Your task to perform on an android device: turn off translation in the chrome app Image 0: 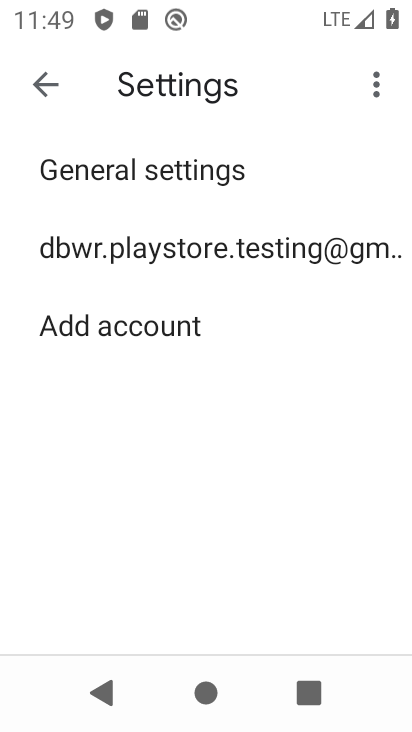
Step 0: press home button
Your task to perform on an android device: turn off translation in the chrome app Image 1: 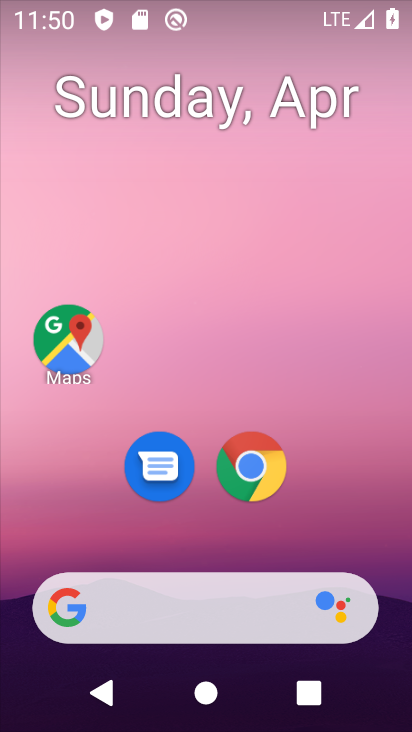
Step 1: drag from (315, 501) to (246, 77)
Your task to perform on an android device: turn off translation in the chrome app Image 2: 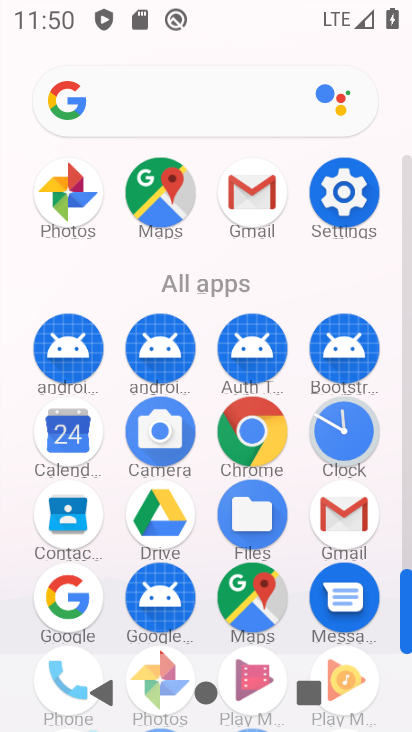
Step 2: click (256, 438)
Your task to perform on an android device: turn off translation in the chrome app Image 3: 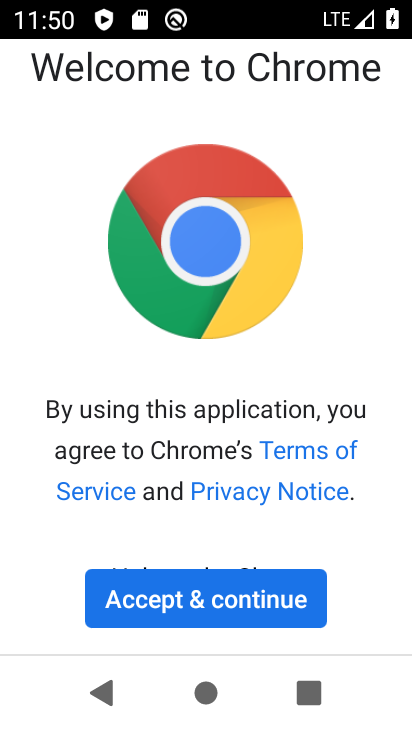
Step 3: click (249, 602)
Your task to perform on an android device: turn off translation in the chrome app Image 4: 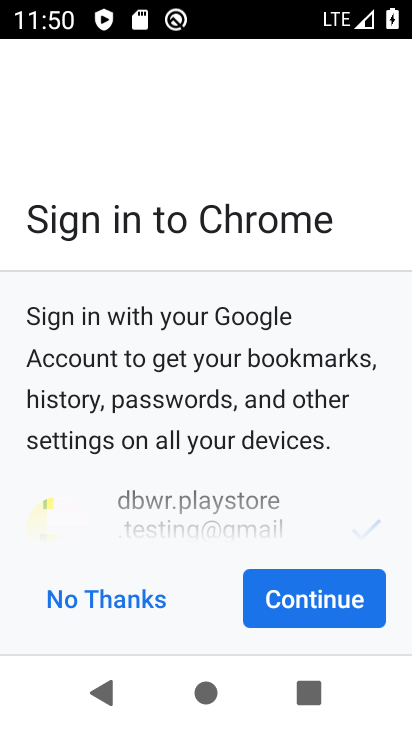
Step 4: click (334, 594)
Your task to perform on an android device: turn off translation in the chrome app Image 5: 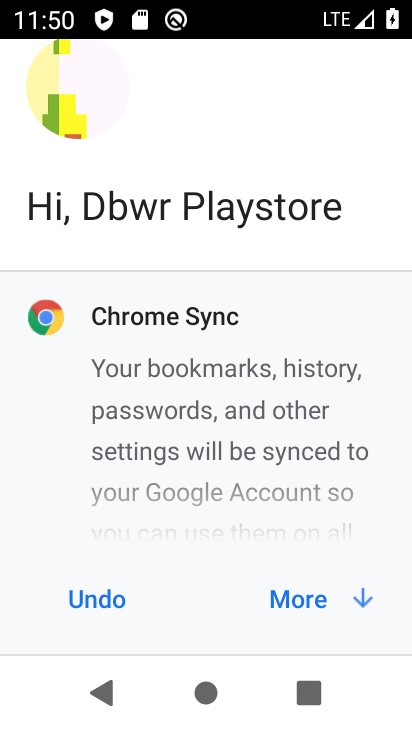
Step 5: click (334, 594)
Your task to perform on an android device: turn off translation in the chrome app Image 6: 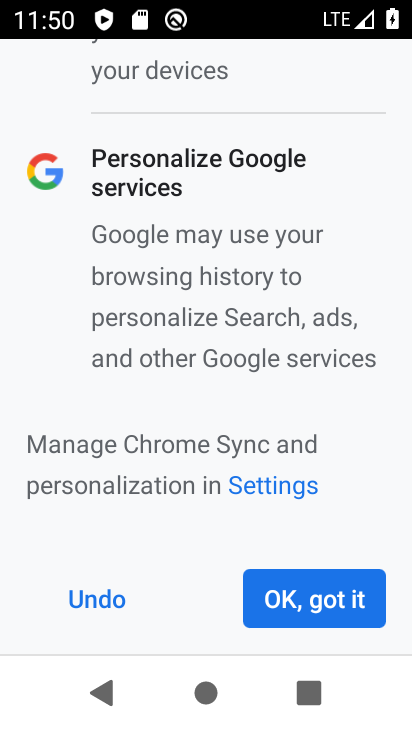
Step 6: click (334, 594)
Your task to perform on an android device: turn off translation in the chrome app Image 7: 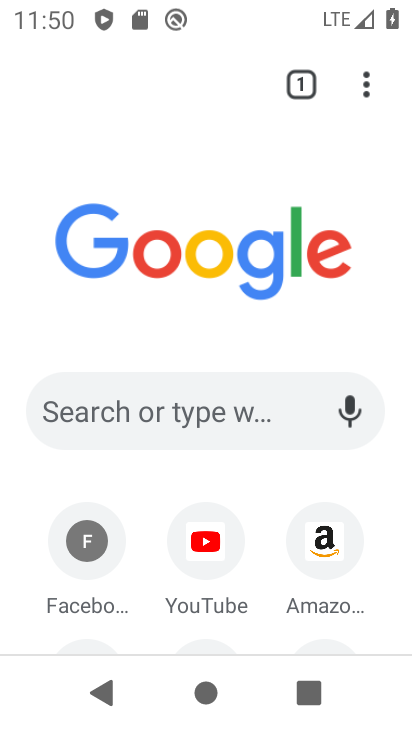
Step 7: drag from (400, 535) to (382, 339)
Your task to perform on an android device: turn off translation in the chrome app Image 8: 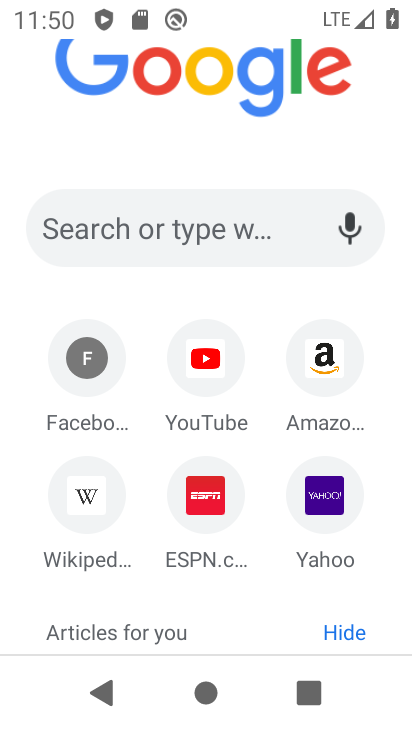
Step 8: drag from (395, 155) to (388, 530)
Your task to perform on an android device: turn off translation in the chrome app Image 9: 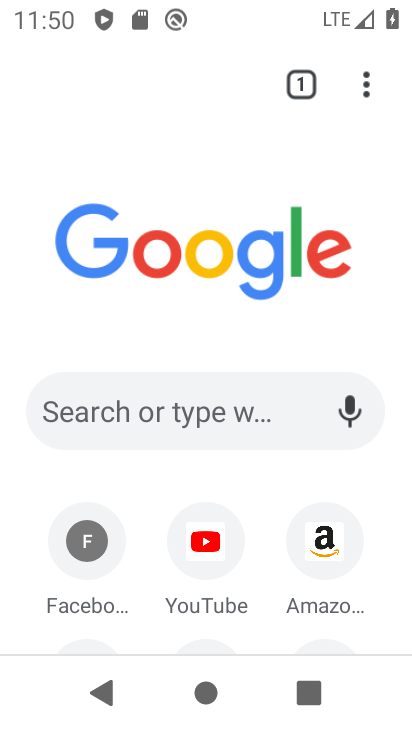
Step 9: click (366, 122)
Your task to perform on an android device: turn off translation in the chrome app Image 10: 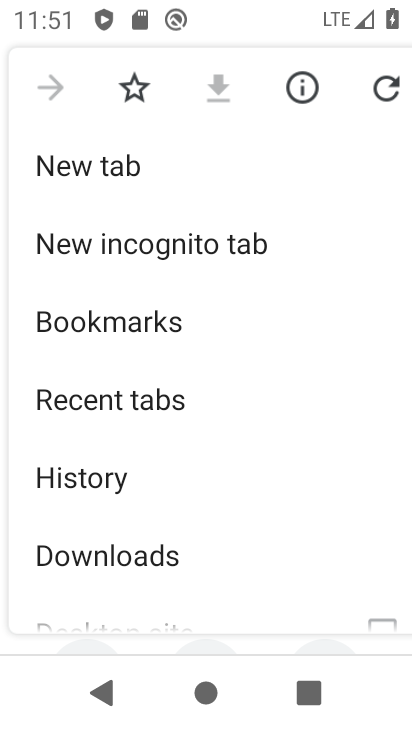
Step 10: drag from (292, 560) to (287, 274)
Your task to perform on an android device: turn off translation in the chrome app Image 11: 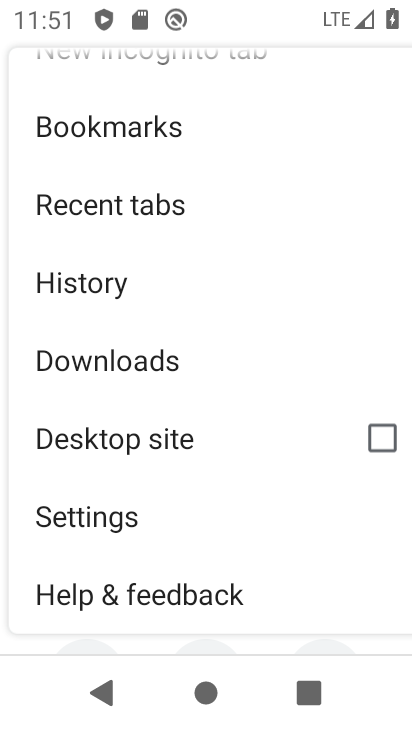
Step 11: click (207, 516)
Your task to perform on an android device: turn off translation in the chrome app Image 12: 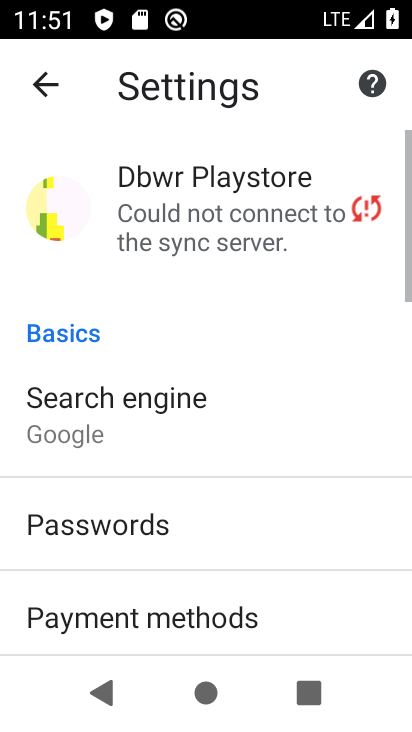
Step 12: drag from (299, 595) to (251, 177)
Your task to perform on an android device: turn off translation in the chrome app Image 13: 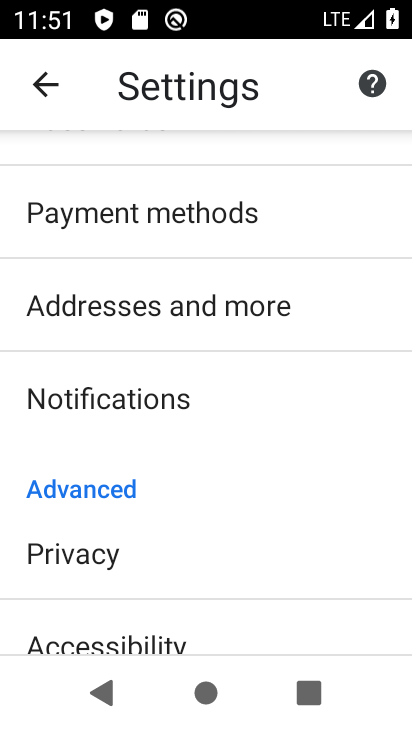
Step 13: drag from (258, 540) to (251, 190)
Your task to perform on an android device: turn off translation in the chrome app Image 14: 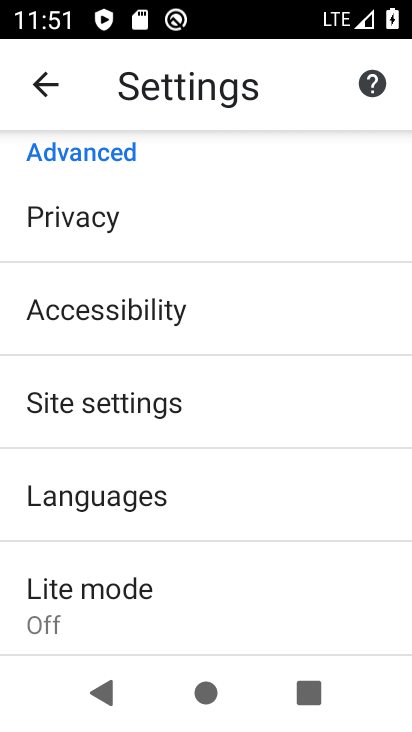
Step 14: click (236, 480)
Your task to perform on an android device: turn off translation in the chrome app Image 15: 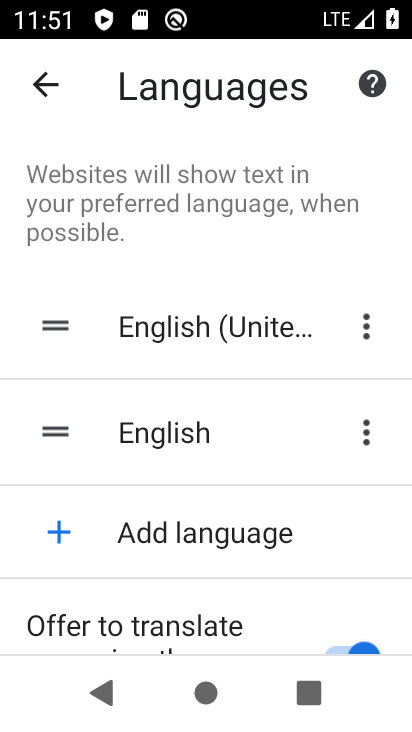
Step 15: click (343, 655)
Your task to perform on an android device: turn off translation in the chrome app Image 16: 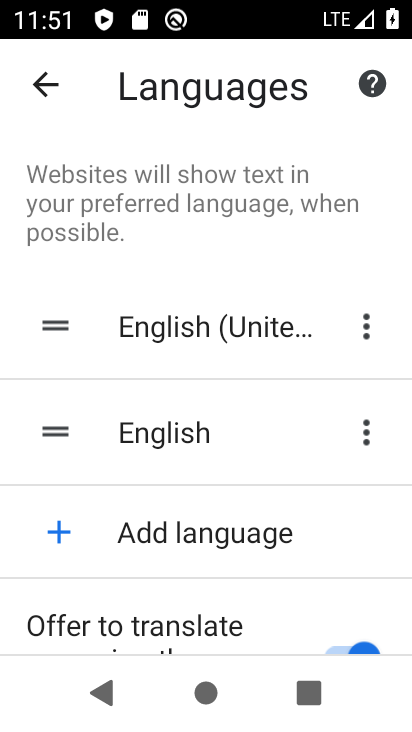
Step 16: drag from (318, 645) to (306, 417)
Your task to perform on an android device: turn off translation in the chrome app Image 17: 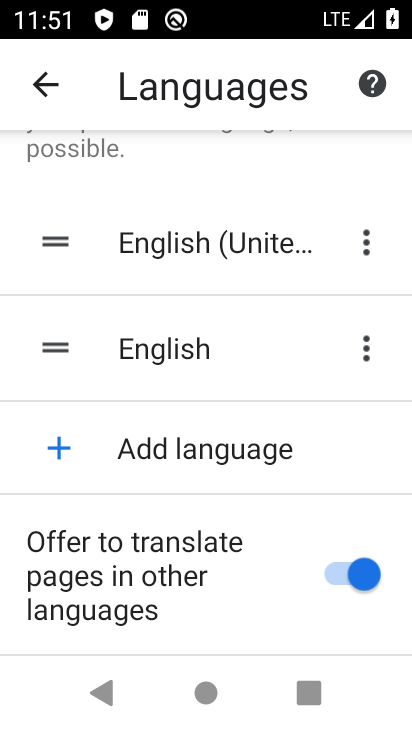
Step 17: click (335, 574)
Your task to perform on an android device: turn off translation in the chrome app Image 18: 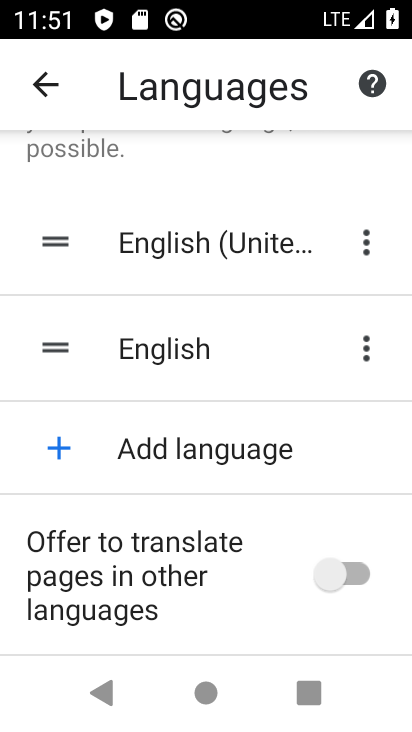
Step 18: task complete